Your task to perform on an android device: Go to Android settings Image 0: 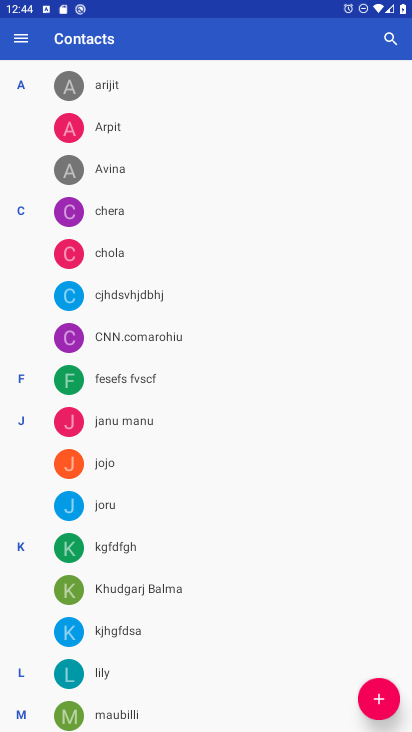
Step 0: press home button
Your task to perform on an android device: Go to Android settings Image 1: 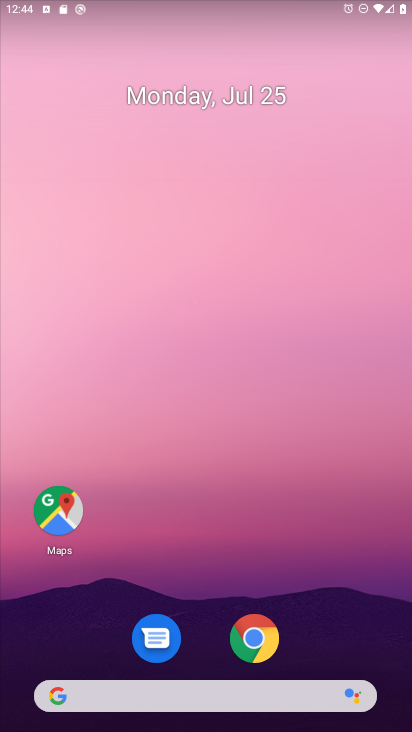
Step 1: drag from (171, 642) to (208, 108)
Your task to perform on an android device: Go to Android settings Image 2: 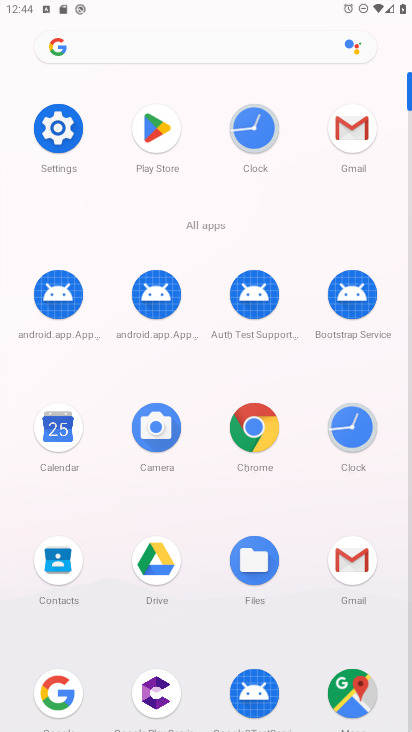
Step 2: click (69, 131)
Your task to perform on an android device: Go to Android settings Image 3: 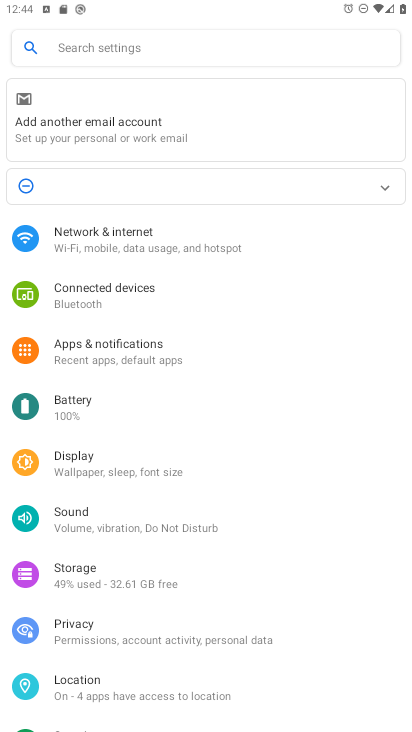
Step 3: task complete